Your task to perform on an android device: turn on priority inbox in the gmail app Image 0: 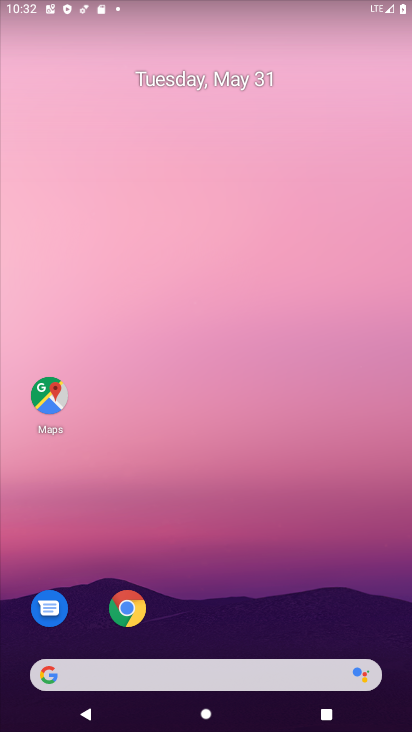
Step 0: drag from (196, 622) to (375, 3)
Your task to perform on an android device: turn on priority inbox in the gmail app Image 1: 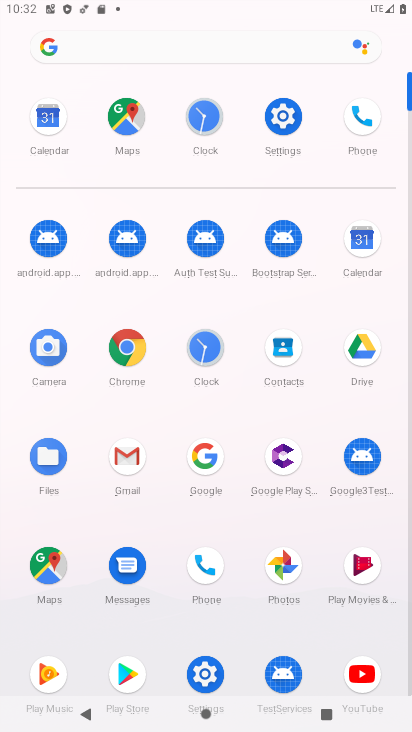
Step 1: click (136, 462)
Your task to perform on an android device: turn on priority inbox in the gmail app Image 2: 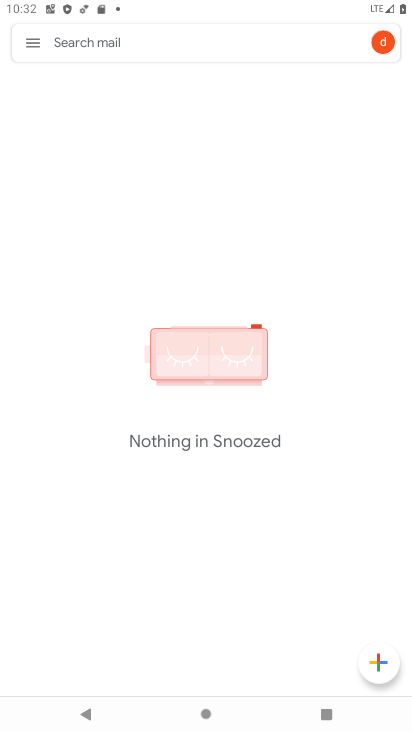
Step 2: click (31, 34)
Your task to perform on an android device: turn on priority inbox in the gmail app Image 3: 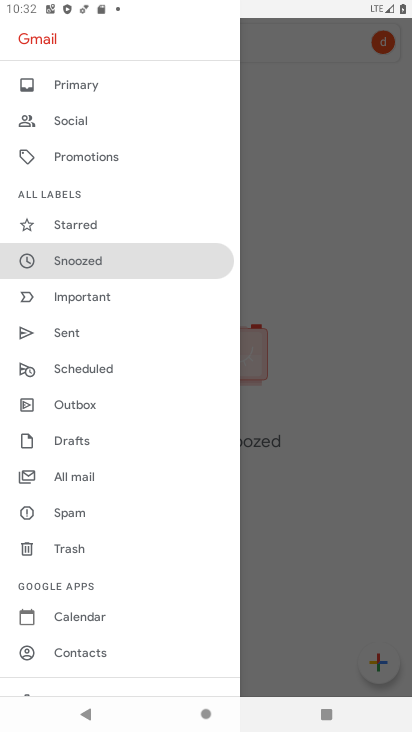
Step 3: drag from (91, 631) to (71, 139)
Your task to perform on an android device: turn on priority inbox in the gmail app Image 4: 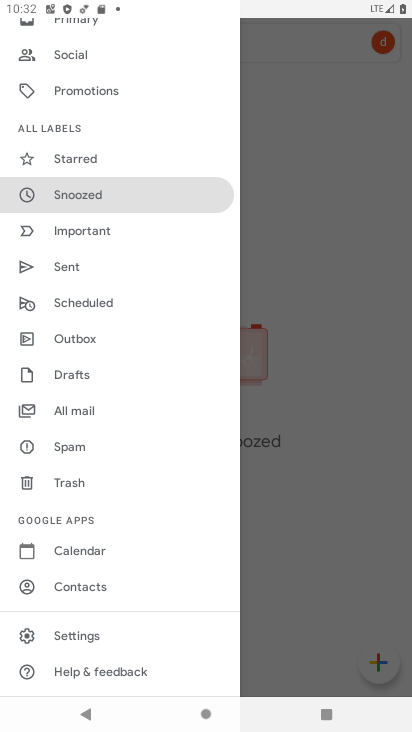
Step 4: click (58, 631)
Your task to perform on an android device: turn on priority inbox in the gmail app Image 5: 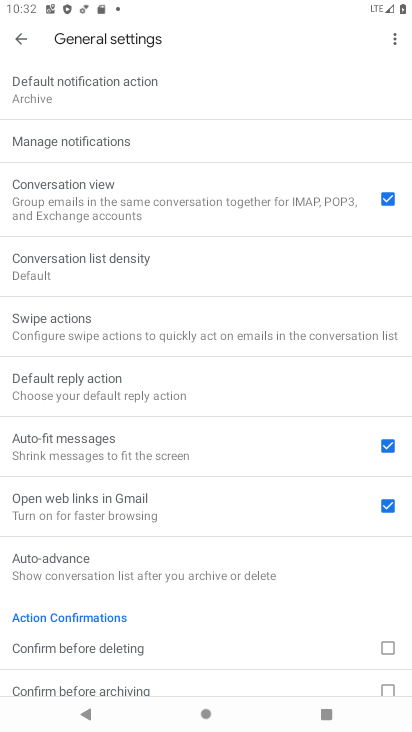
Step 5: click (25, 30)
Your task to perform on an android device: turn on priority inbox in the gmail app Image 6: 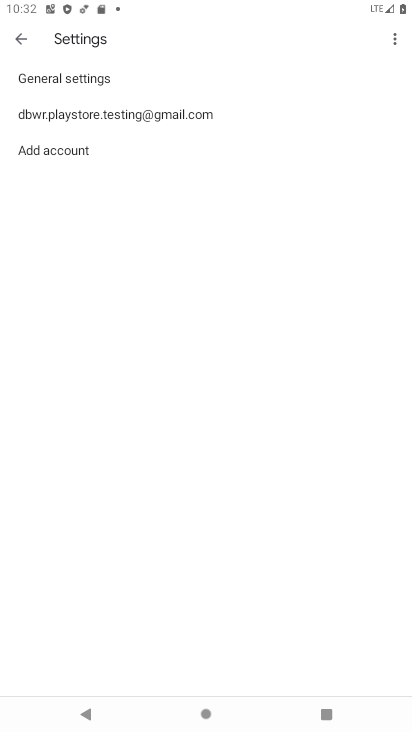
Step 6: click (89, 98)
Your task to perform on an android device: turn on priority inbox in the gmail app Image 7: 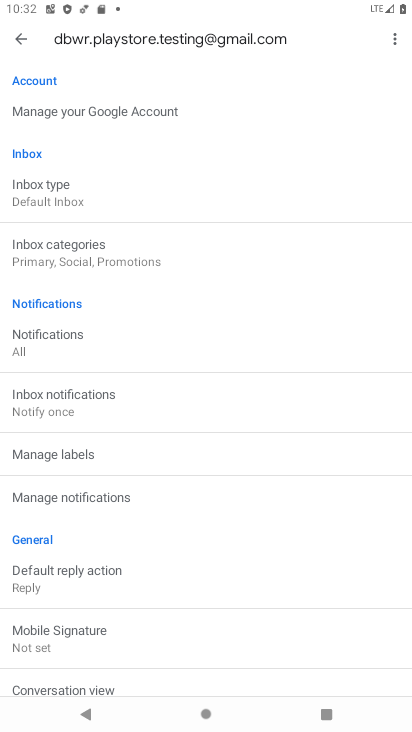
Step 7: click (50, 193)
Your task to perform on an android device: turn on priority inbox in the gmail app Image 8: 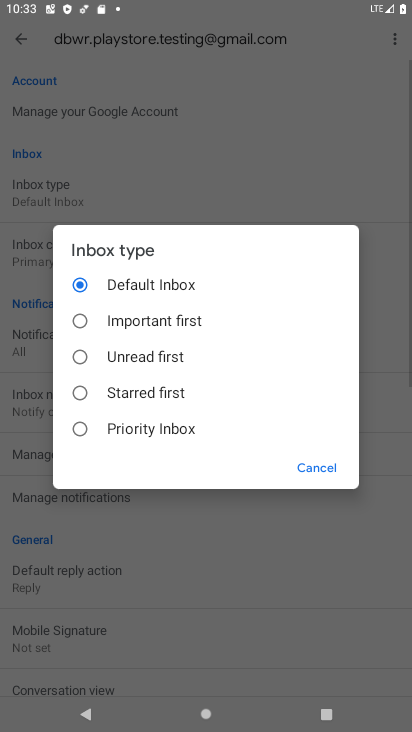
Step 8: click (138, 416)
Your task to perform on an android device: turn on priority inbox in the gmail app Image 9: 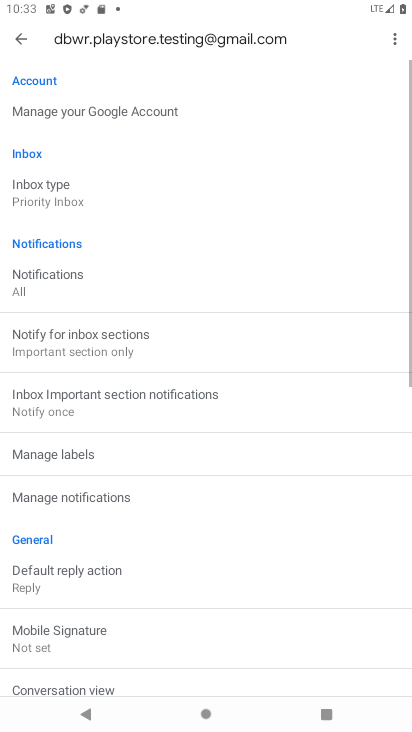
Step 9: task complete